Your task to perform on an android device: turn on data saver in the chrome app Image 0: 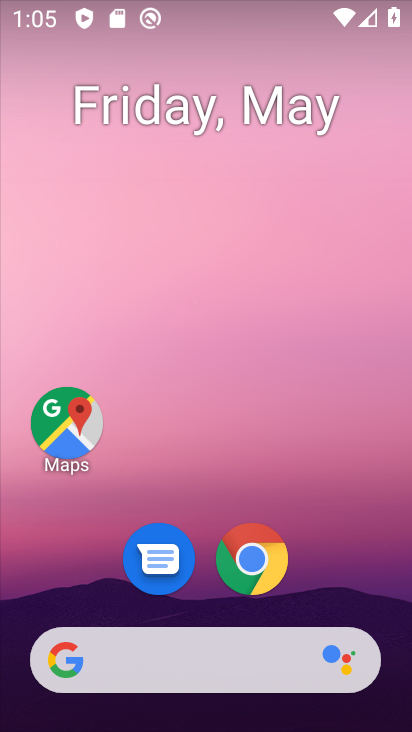
Step 0: drag from (341, 563) to (264, 153)
Your task to perform on an android device: turn on data saver in the chrome app Image 1: 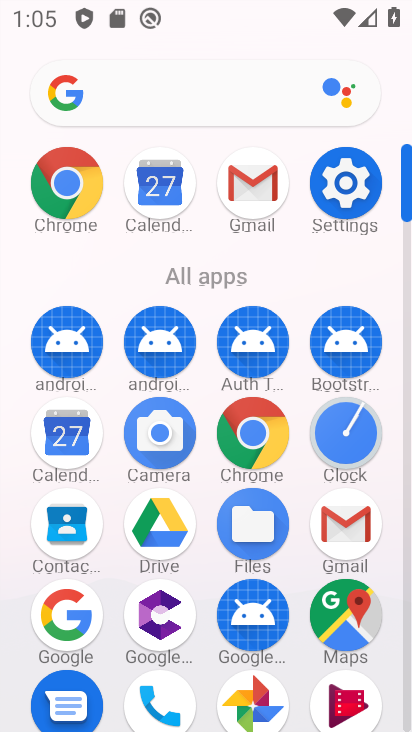
Step 1: click (269, 436)
Your task to perform on an android device: turn on data saver in the chrome app Image 2: 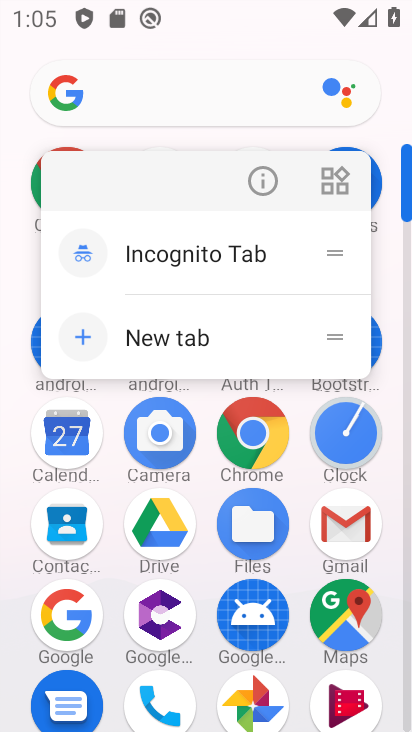
Step 2: click (269, 436)
Your task to perform on an android device: turn on data saver in the chrome app Image 3: 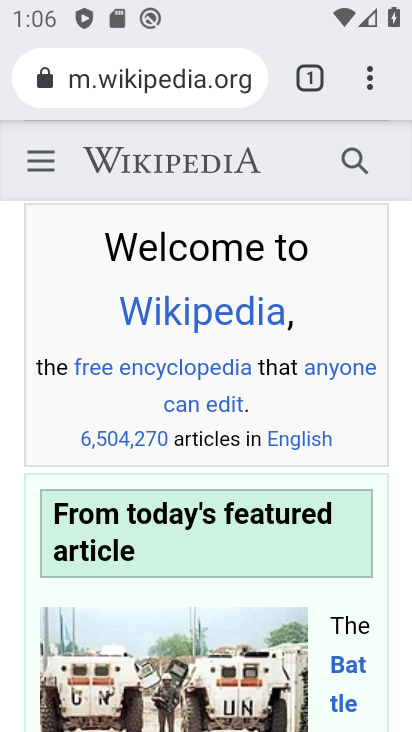
Step 3: task complete